Your task to perform on an android device: Open settings Image 0: 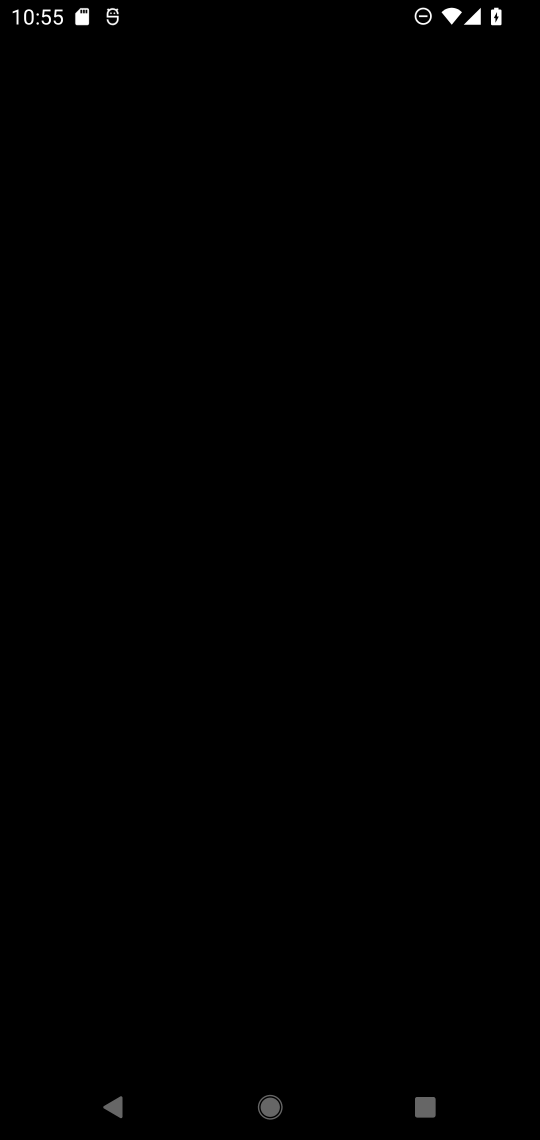
Step 0: press home button
Your task to perform on an android device: Open settings Image 1: 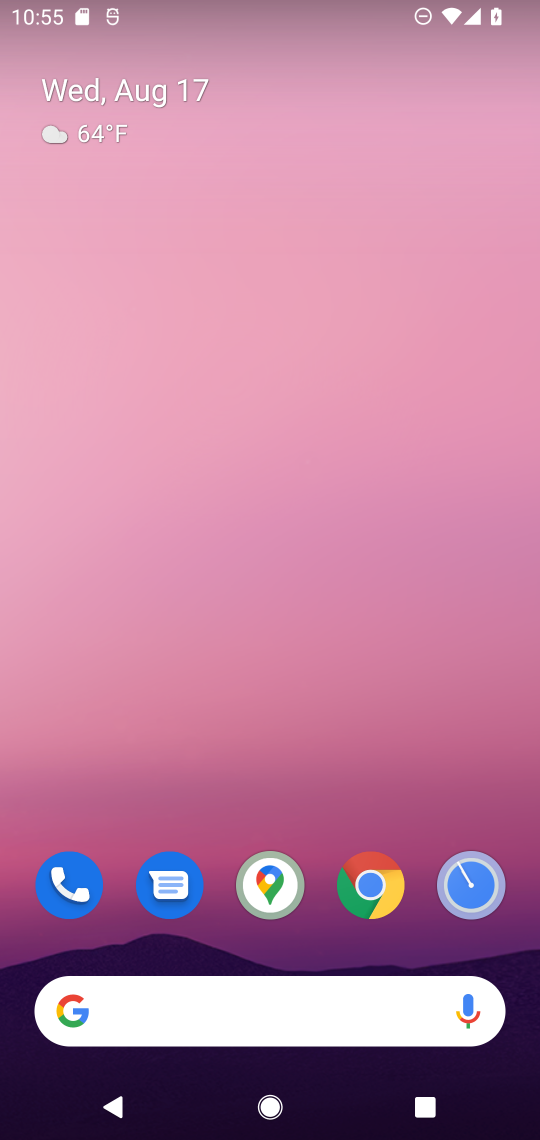
Step 1: drag from (426, 940) to (391, 104)
Your task to perform on an android device: Open settings Image 2: 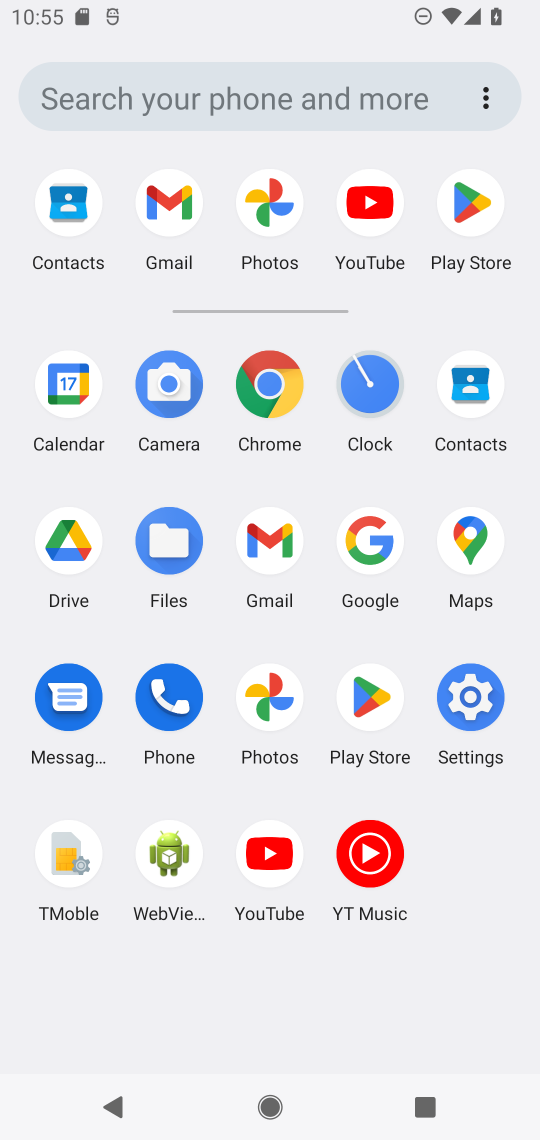
Step 2: click (469, 700)
Your task to perform on an android device: Open settings Image 3: 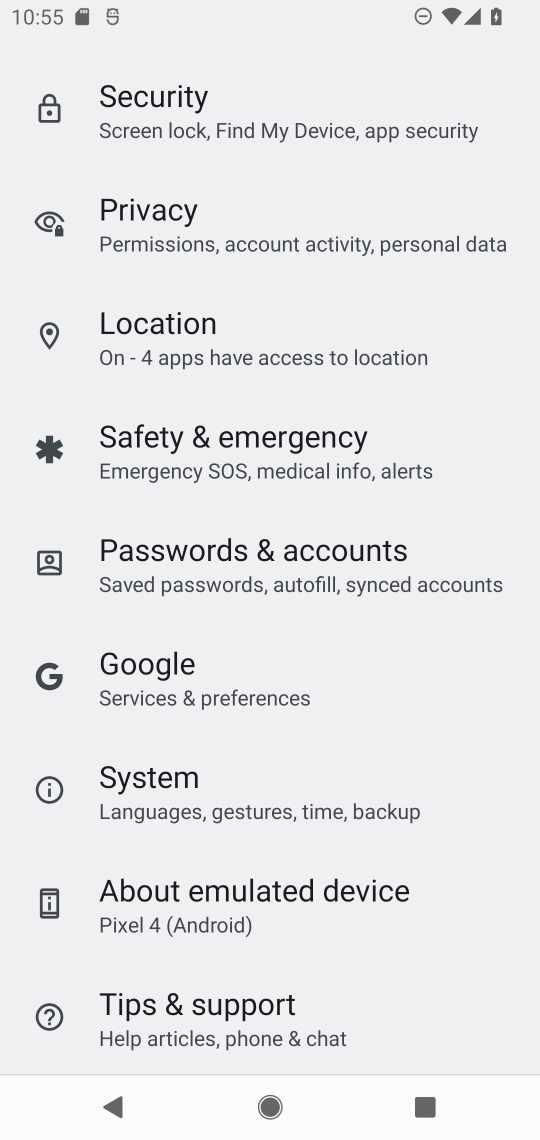
Step 3: task complete